Your task to perform on an android device: What is the news today? Image 0: 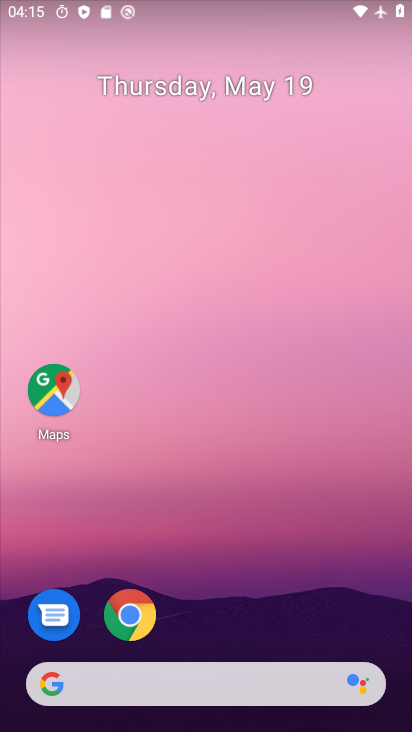
Step 0: click (123, 677)
Your task to perform on an android device: What is the news today? Image 1: 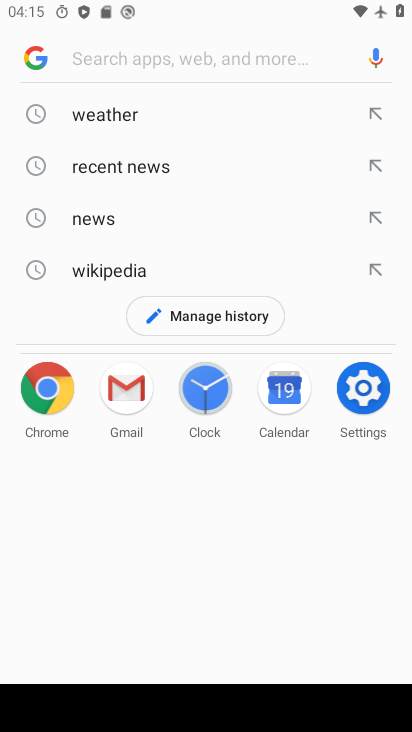
Step 1: click (112, 71)
Your task to perform on an android device: What is the news today? Image 2: 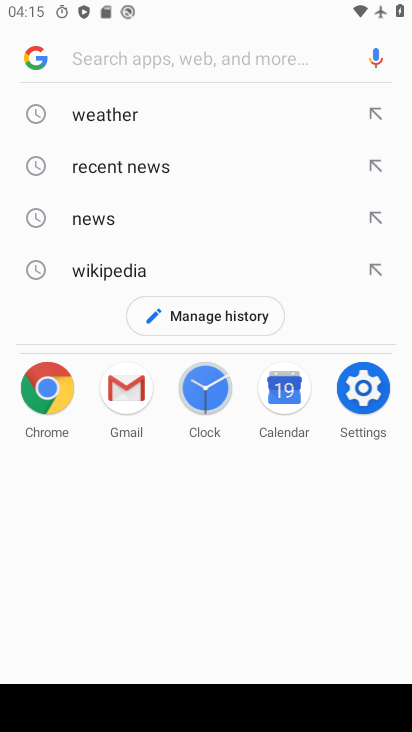
Step 2: type "news today"
Your task to perform on an android device: What is the news today? Image 3: 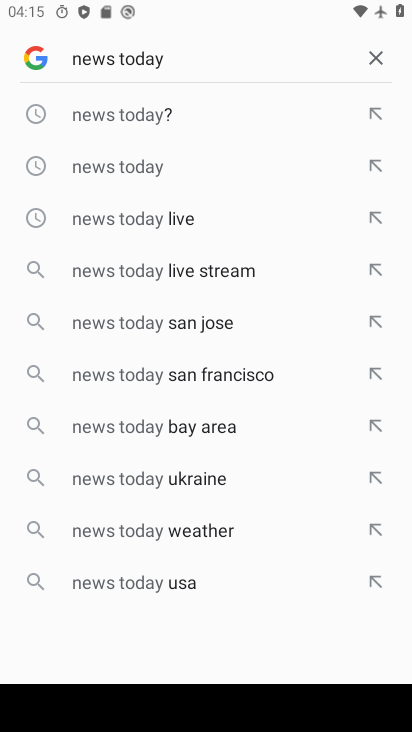
Step 3: click (137, 172)
Your task to perform on an android device: What is the news today? Image 4: 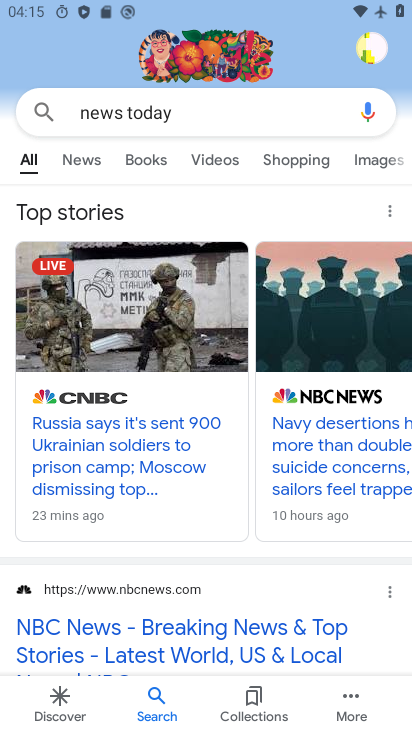
Step 4: click (126, 361)
Your task to perform on an android device: What is the news today? Image 5: 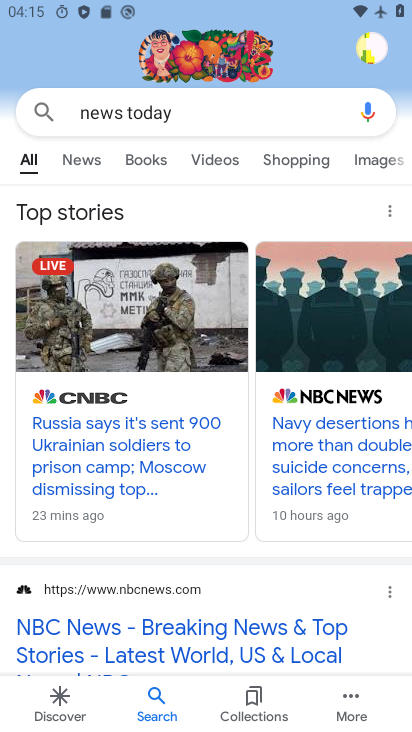
Step 5: click (119, 348)
Your task to perform on an android device: What is the news today? Image 6: 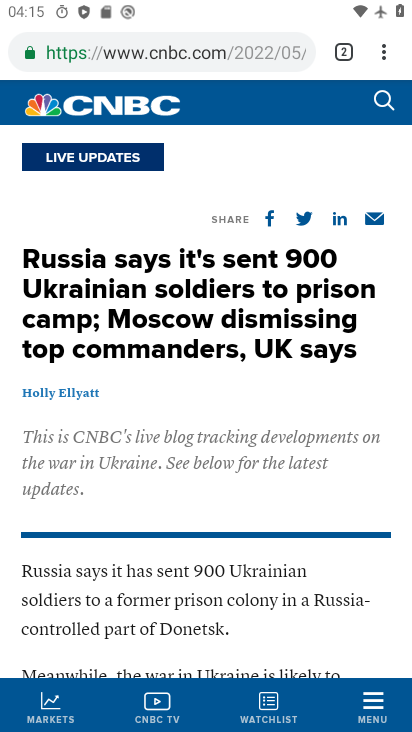
Step 6: task complete